Your task to perform on an android device: install app "DoorDash - Dasher" Image 0: 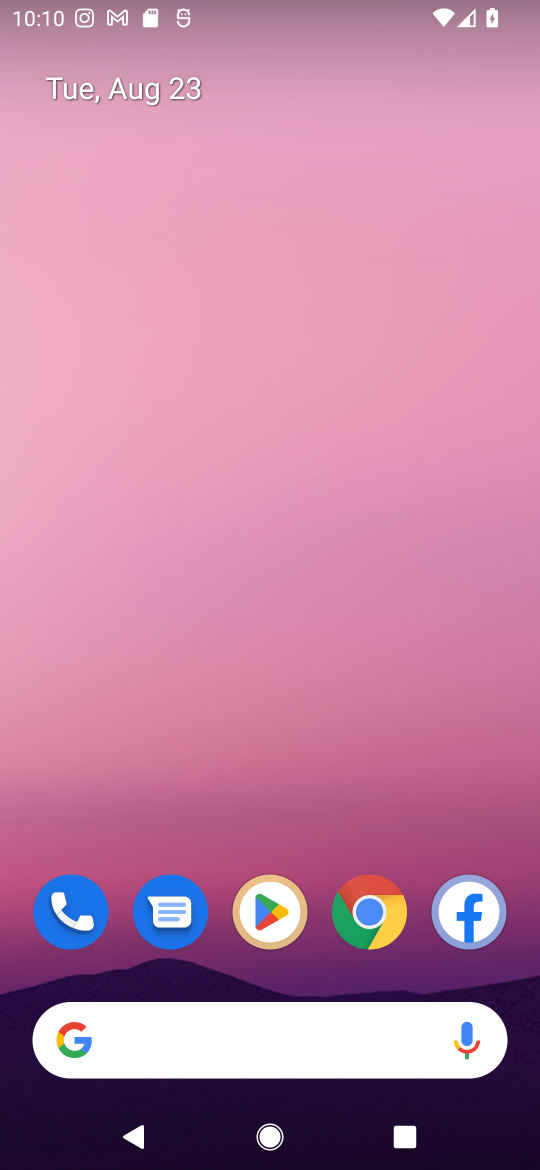
Step 0: click (266, 918)
Your task to perform on an android device: install app "DoorDash - Dasher" Image 1: 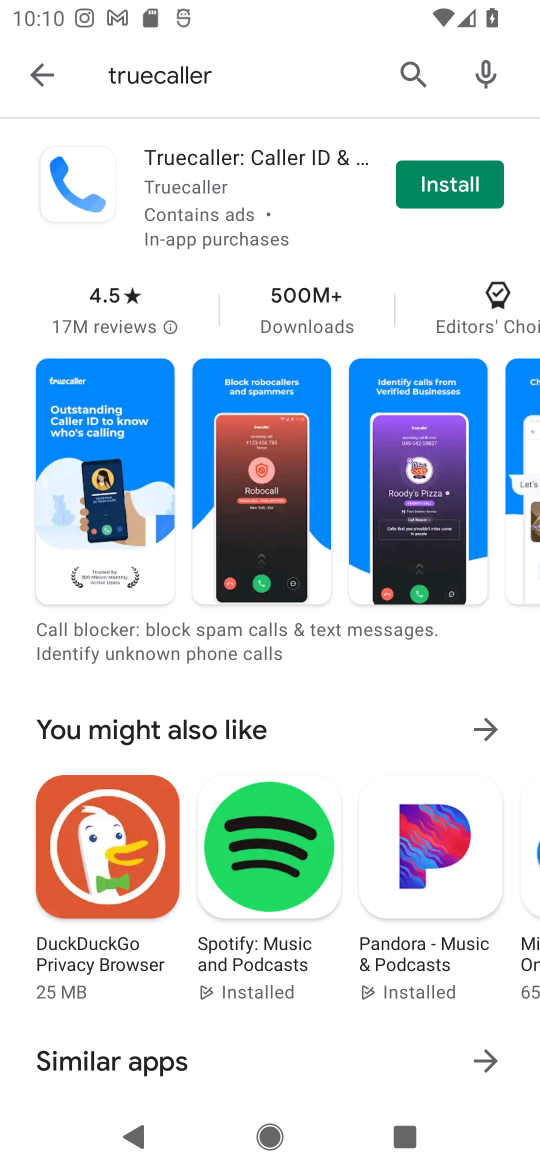
Step 1: click (406, 74)
Your task to perform on an android device: install app "DoorDash - Dasher" Image 2: 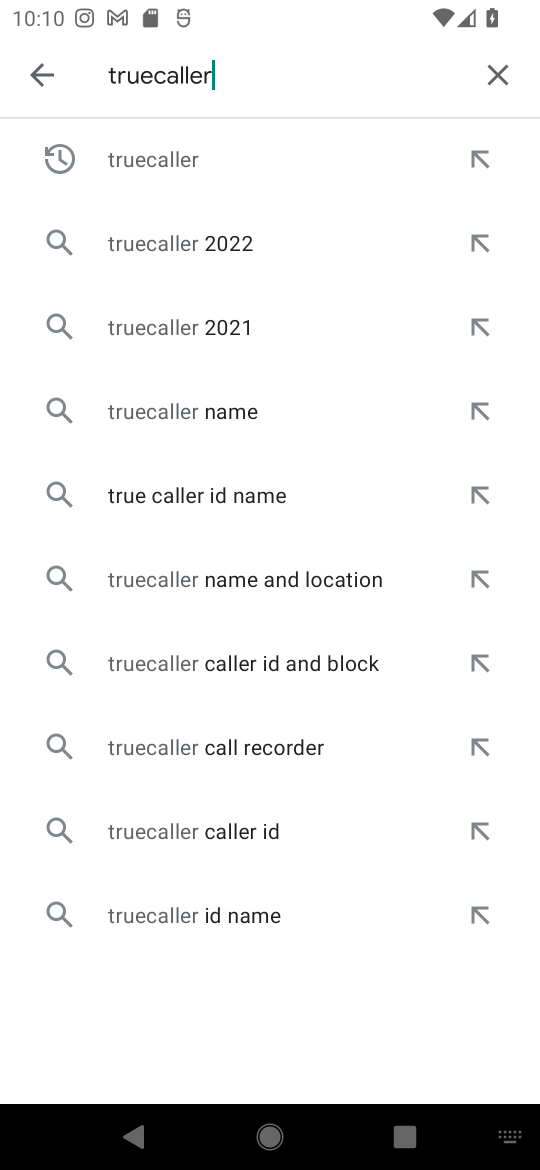
Step 2: click (497, 71)
Your task to perform on an android device: install app "DoorDash - Dasher" Image 3: 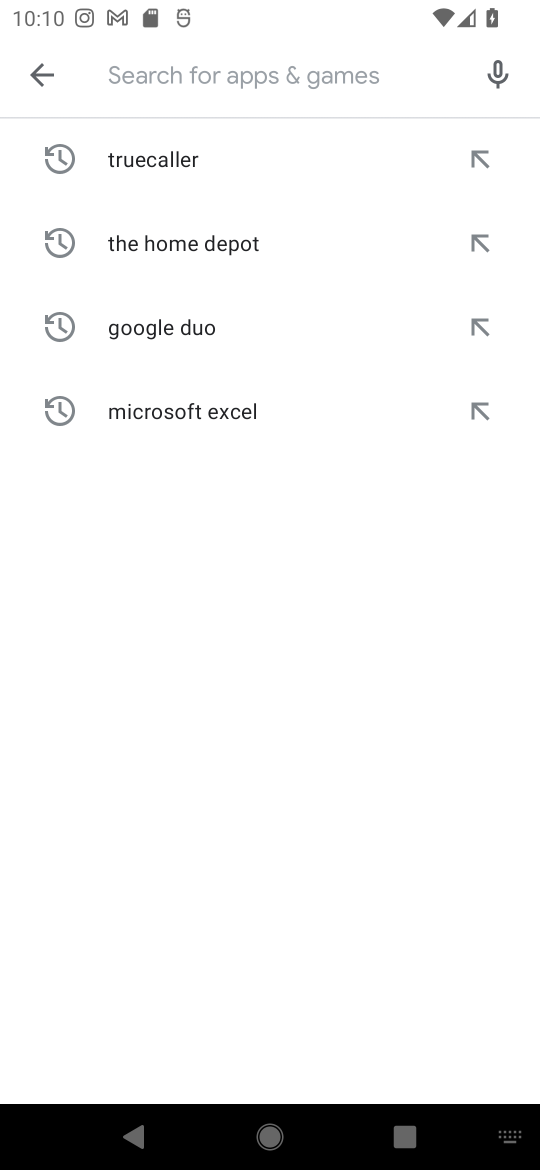
Step 3: type "DoorDash - Dasher"
Your task to perform on an android device: install app "DoorDash - Dasher" Image 4: 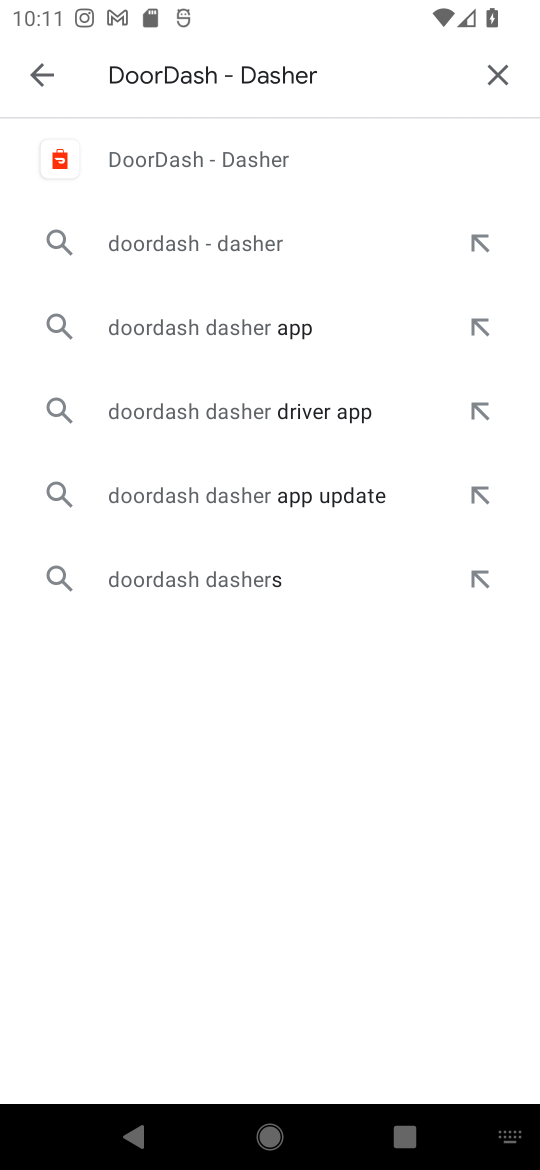
Step 4: click (257, 157)
Your task to perform on an android device: install app "DoorDash - Dasher" Image 5: 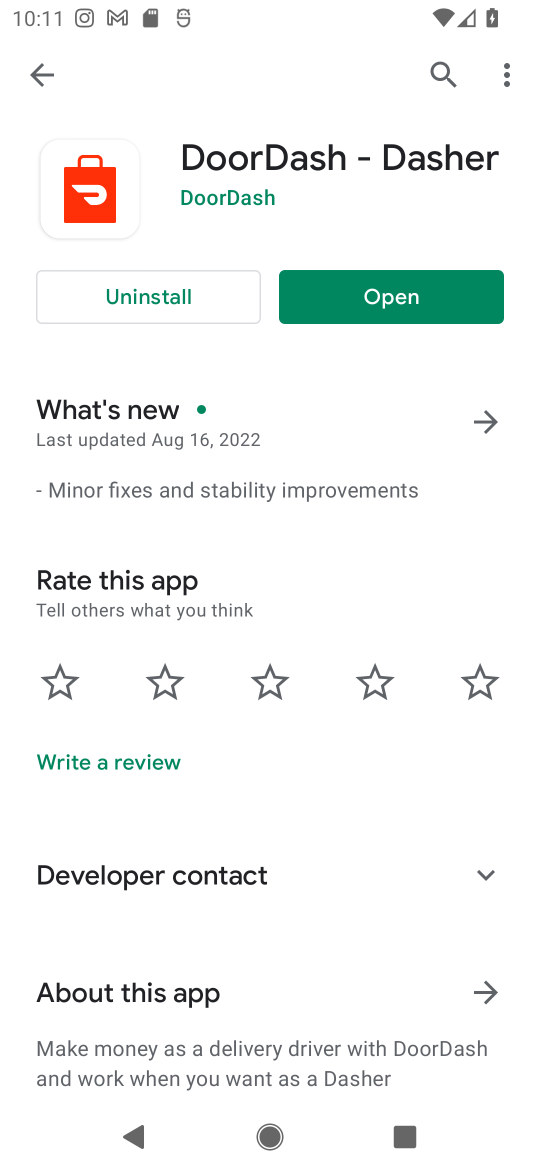
Step 5: task complete